Your task to perform on an android device: turn off priority inbox in the gmail app Image 0: 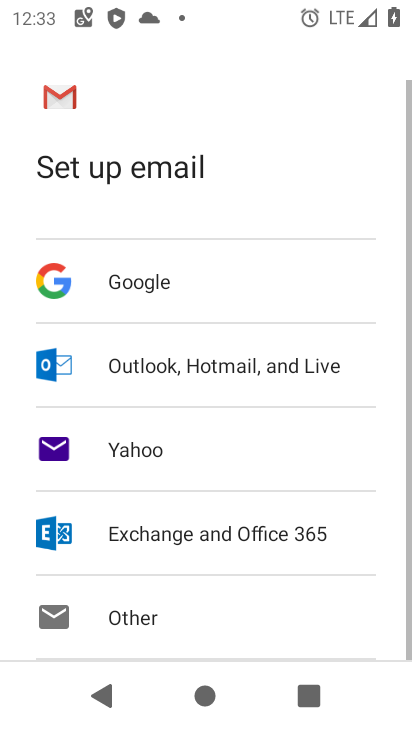
Step 0: drag from (277, 567) to (311, 212)
Your task to perform on an android device: turn off priority inbox in the gmail app Image 1: 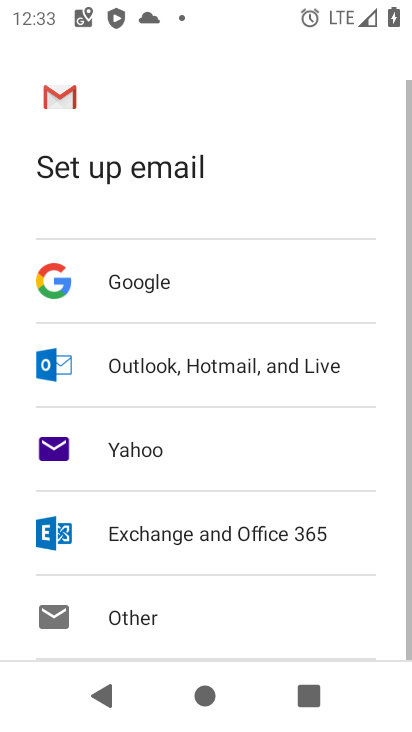
Step 1: press home button
Your task to perform on an android device: turn off priority inbox in the gmail app Image 2: 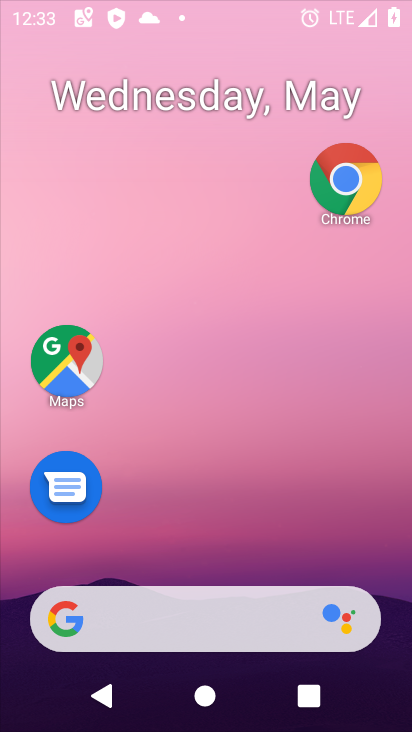
Step 2: drag from (246, 566) to (266, 13)
Your task to perform on an android device: turn off priority inbox in the gmail app Image 3: 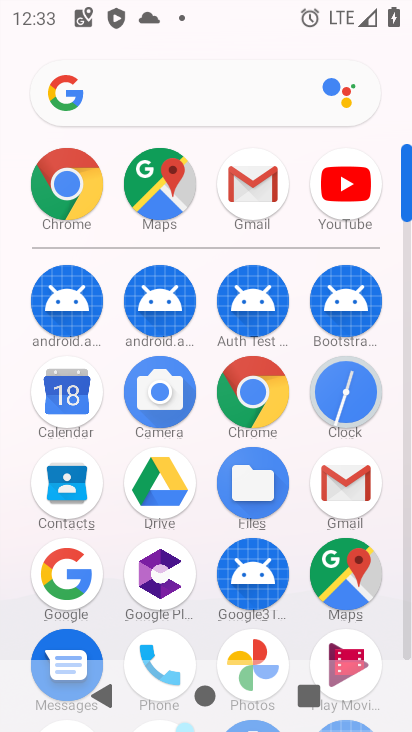
Step 3: click (334, 486)
Your task to perform on an android device: turn off priority inbox in the gmail app Image 4: 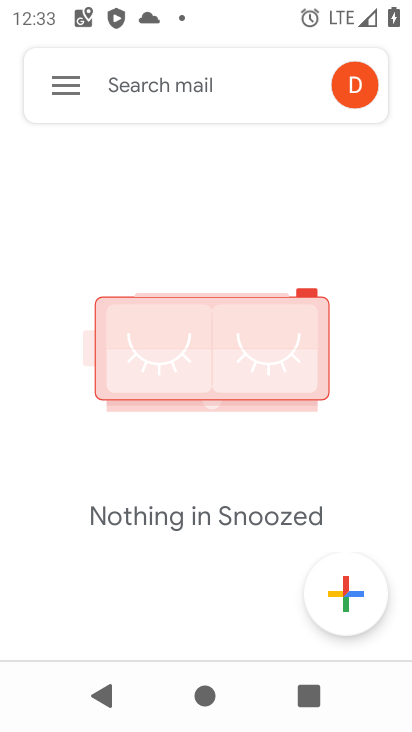
Step 4: click (62, 93)
Your task to perform on an android device: turn off priority inbox in the gmail app Image 5: 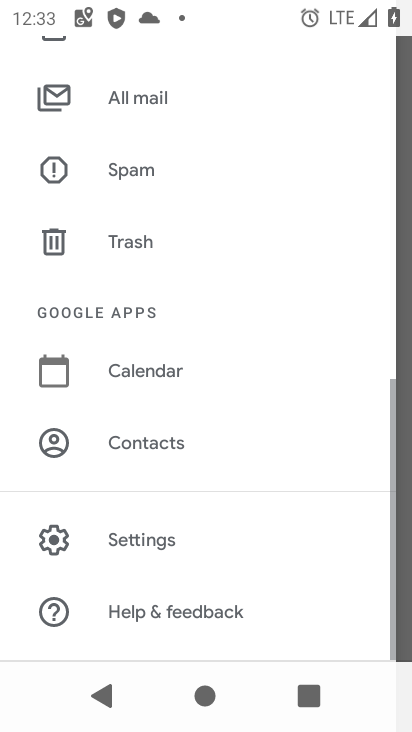
Step 5: drag from (129, 552) to (219, 65)
Your task to perform on an android device: turn off priority inbox in the gmail app Image 6: 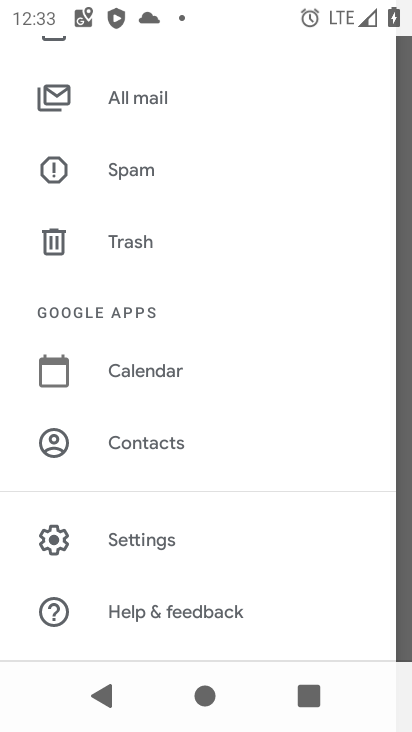
Step 6: click (125, 540)
Your task to perform on an android device: turn off priority inbox in the gmail app Image 7: 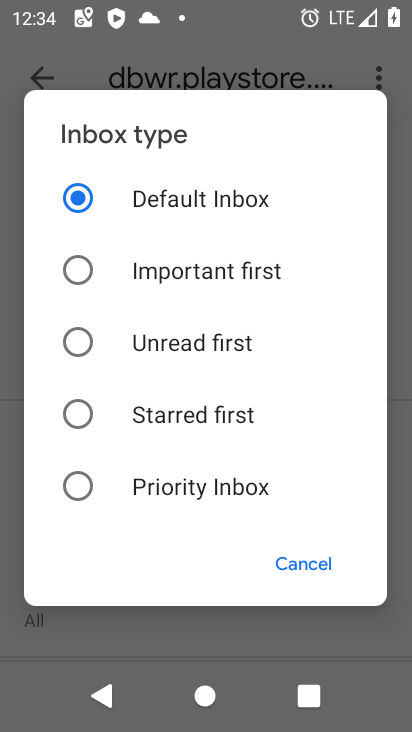
Step 7: click (116, 284)
Your task to perform on an android device: turn off priority inbox in the gmail app Image 8: 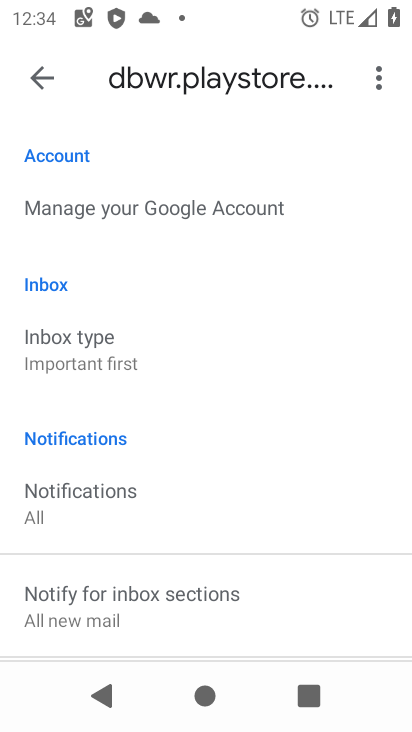
Step 8: task complete